Your task to perform on an android device: Open accessibility settings Image 0: 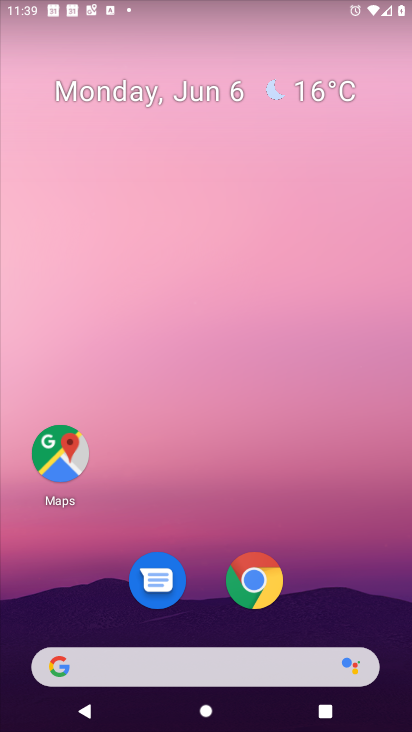
Step 0: drag from (363, 618) to (339, 100)
Your task to perform on an android device: Open accessibility settings Image 1: 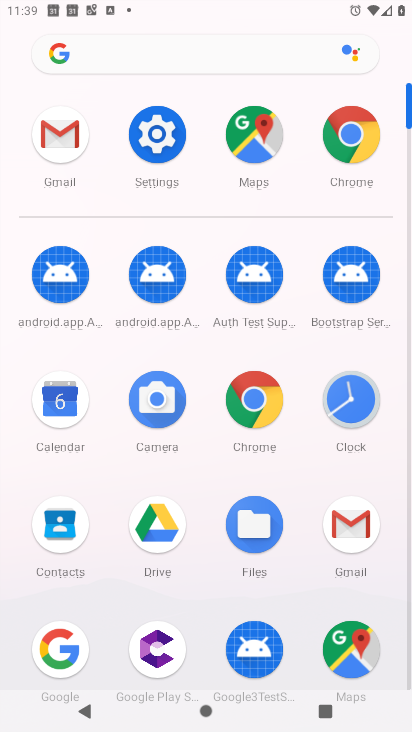
Step 1: click (150, 153)
Your task to perform on an android device: Open accessibility settings Image 2: 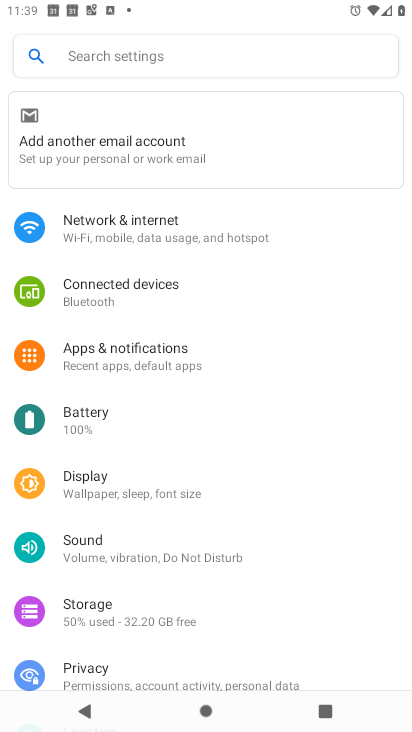
Step 2: drag from (213, 652) to (291, 158)
Your task to perform on an android device: Open accessibility settings Image 3: 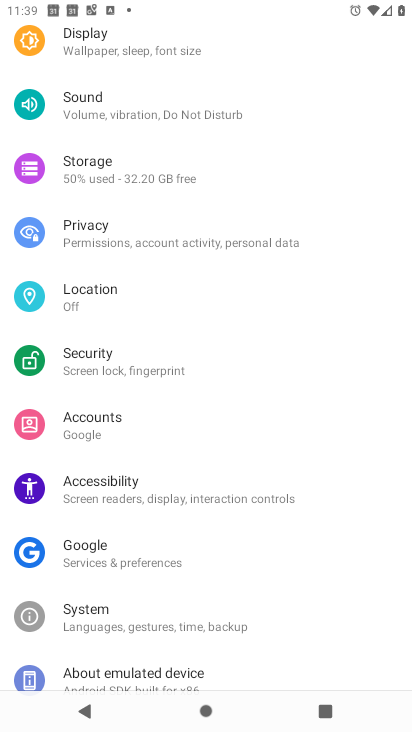
Step 3: click (188, 497)
Your task to perform on an android device: Open accessibility settings Image 4: 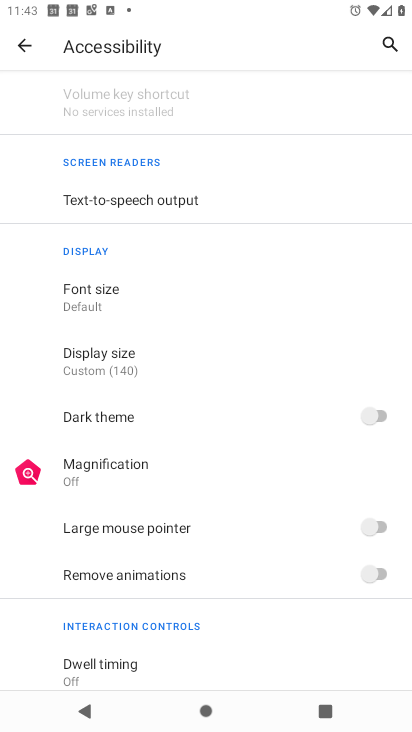
Step 4: task complete